Your task to perform on an android device: Open maps Image 0: 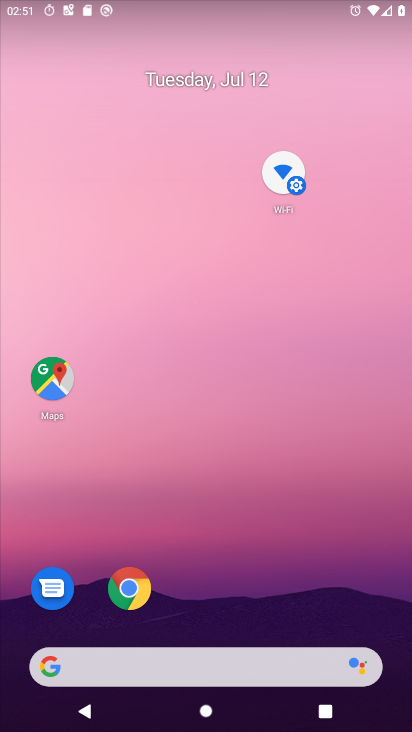
Step 0: drag from (189, 593) to (272, 116)
Your task to perform on an android device: Open maps Image 1: 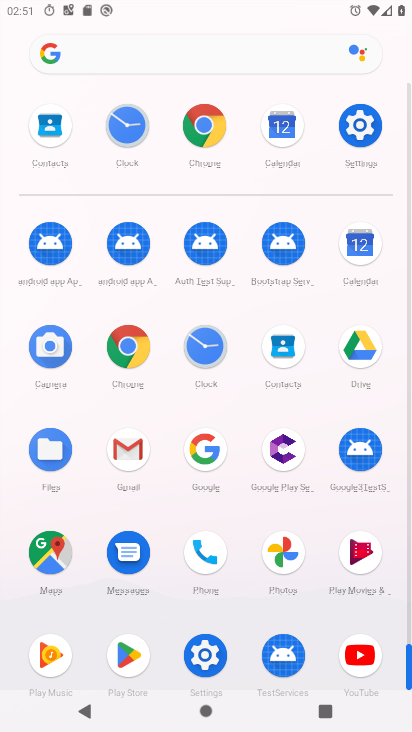
Step 1: click (50, 555)
Your task to perform on an android device: Open maps Image 2: 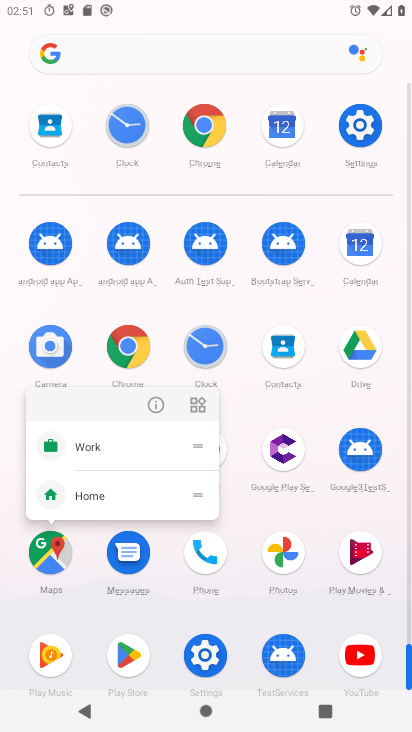
Step 2: click (153, 397)
Your task to perform on an android device: Open maps Image 3: 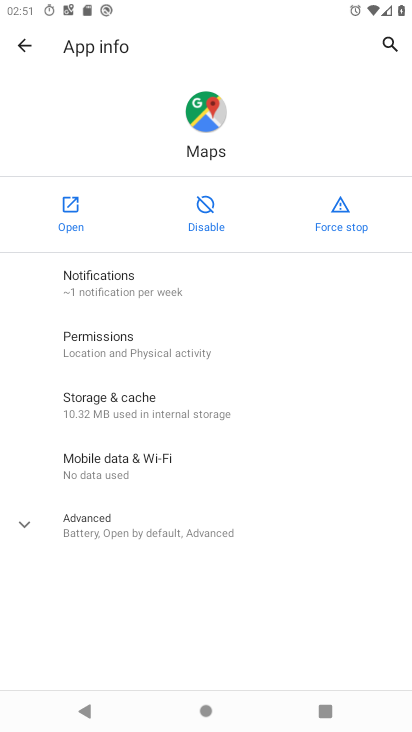
Step 3: click (59, 215)
Your task to perform on an android device: Open maps Image 4: 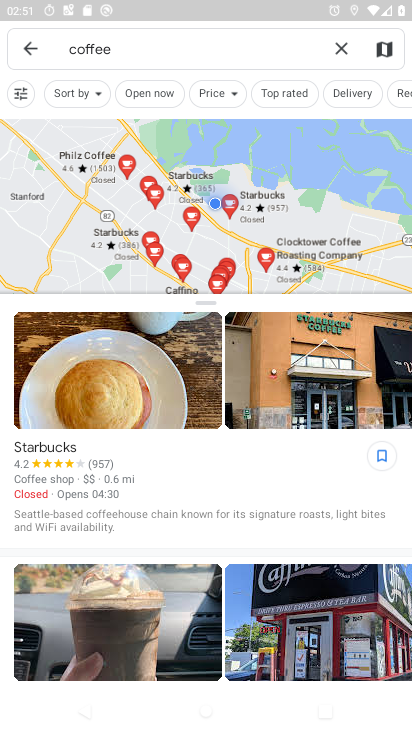
Step 4: task complete